Your task to perform on an android device: turn off notifications settings in the gmail app Image 0: 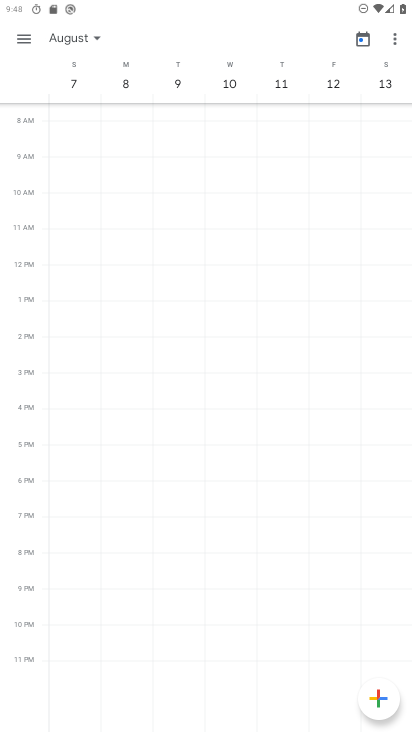
Step 0: drag from (305, 554) to (243, 117)
Your task to perform on an android device: turn off notifications settings in the gmail app Image 1: 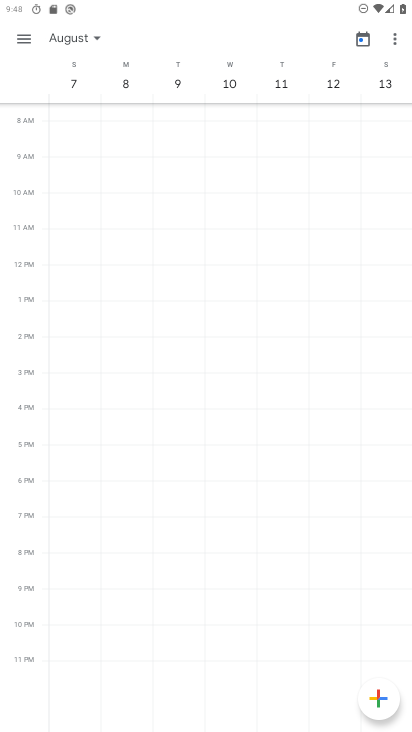
Step 1: press home button
Your task to perform on an android device: turn off notifications settings in the gmail app Image 2: 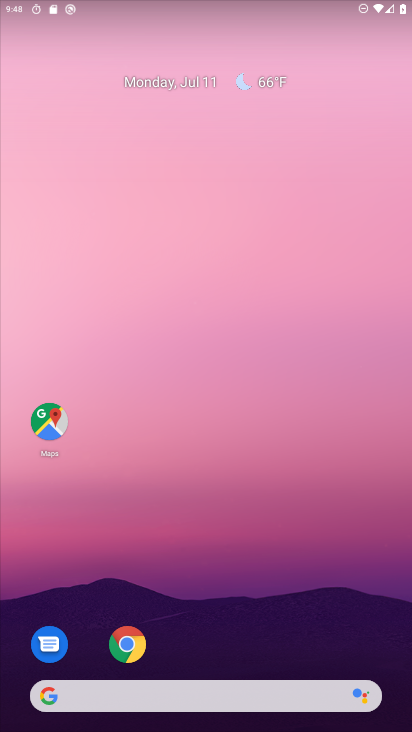
Step 2: drag from (278, 568) to (203, 143)
Your task to perform on an android device: turn off notifications settings in the gmail app Image 3: 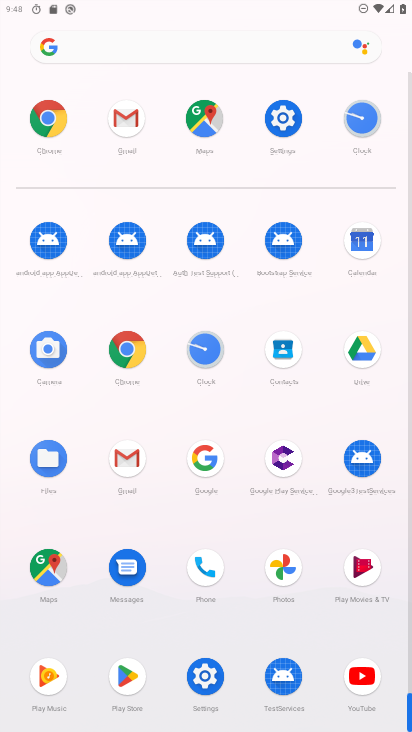
Step 3: click (129, 121)
Your task to perform on an android device: turn off notifications settings in the gmail app Image 4: 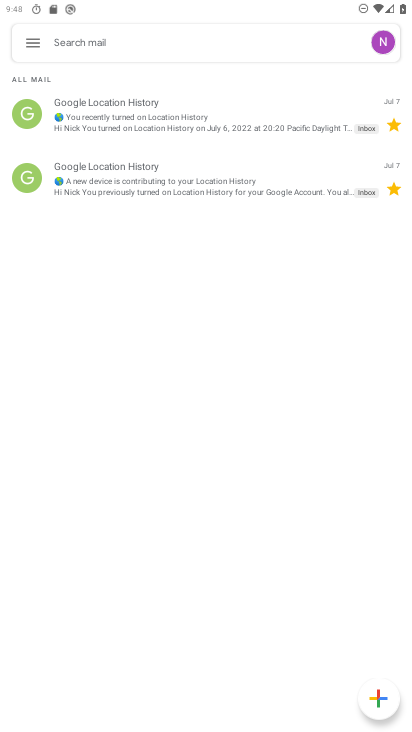
Step 4: click (27, 38)
Your task to perform on an android device: turn off notifications settings in the gmail app Image 5: 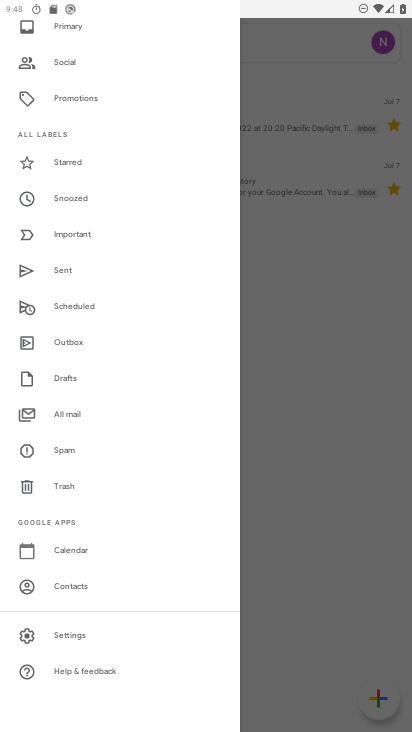
Step 5: click (80, 634)
Your task to perform on an android device: turn off notifications settings in the gmail app Image 6: 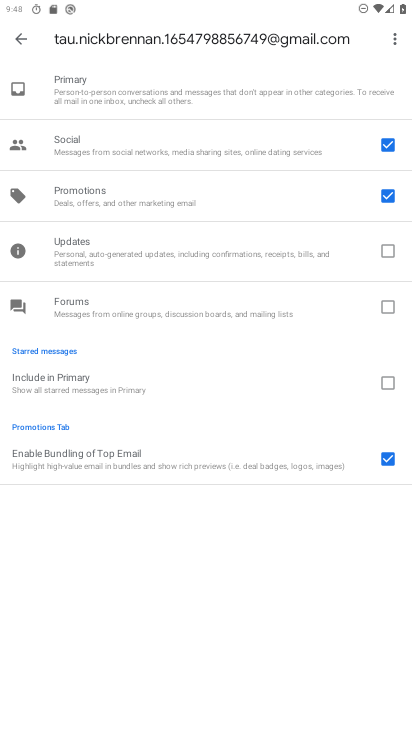
Step 6: click (25, 41)
Your task to perform on an android device: turn off notifications settings in the gmail app Image 7: 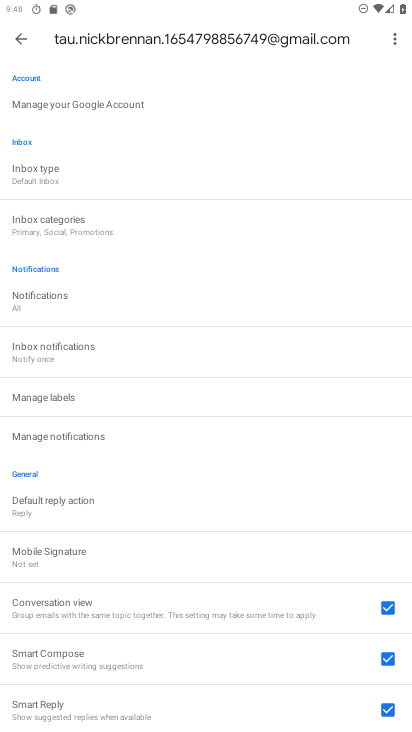
Step 7: click (92, 431)
Your task to perform on an android device: turn off notifications settings in the gmail app Image 8: 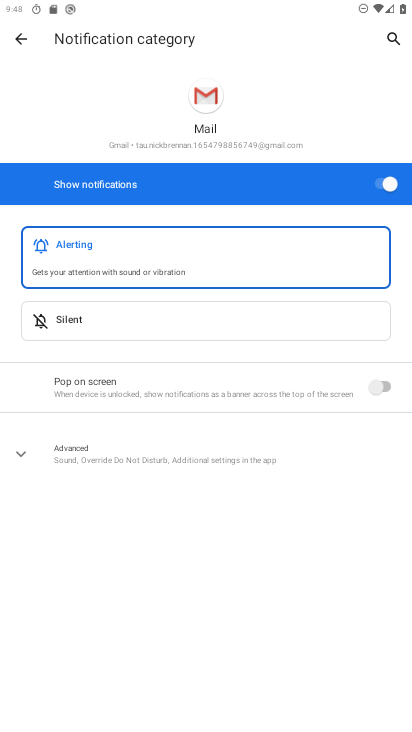
Step 8: click (394, 182)
Your task to perform on an android device: turn off notifications settings in the gmail app Image 9: 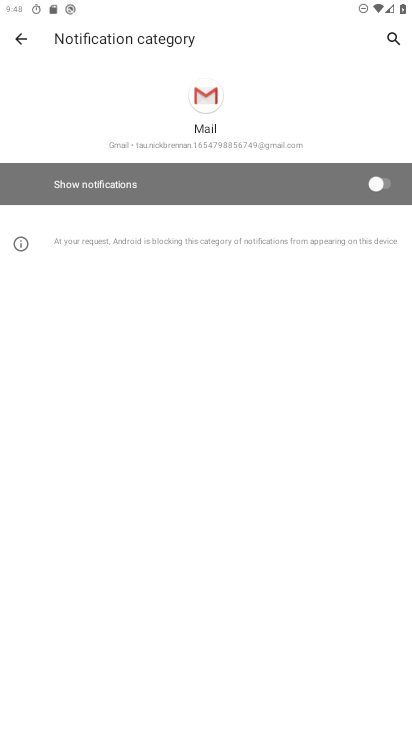
Step 9: task complete